Your task to perform on an android device: add a contact in the contacts app Image 0: 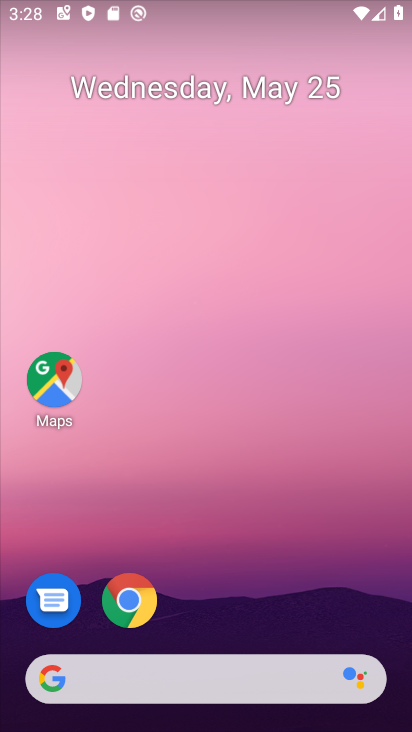
Step 0: press home button
Your task to perform on an android device: add a contact in the contacts app Image 1: 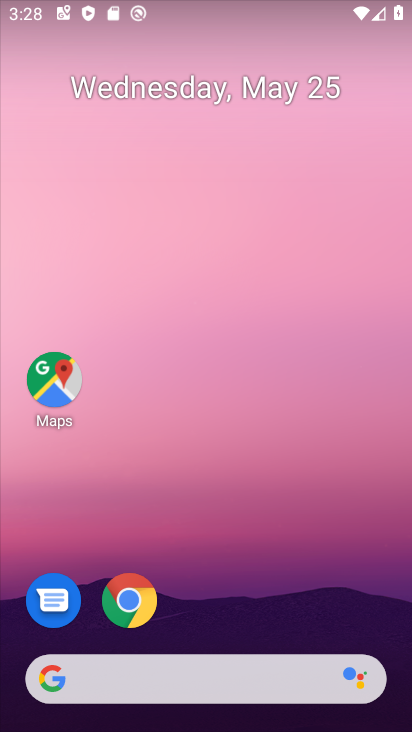
Step 1: drag from (13, 678) to (252, 102)
Your task to perform on an android device: add a contact in the contacts app Image 2: 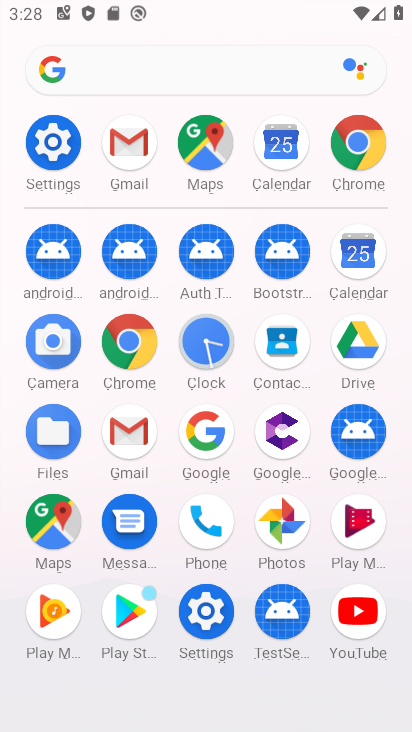
Step 2: click (203, 531)
Your task to perform on an android device: add a contact in the contacts app Image 3: 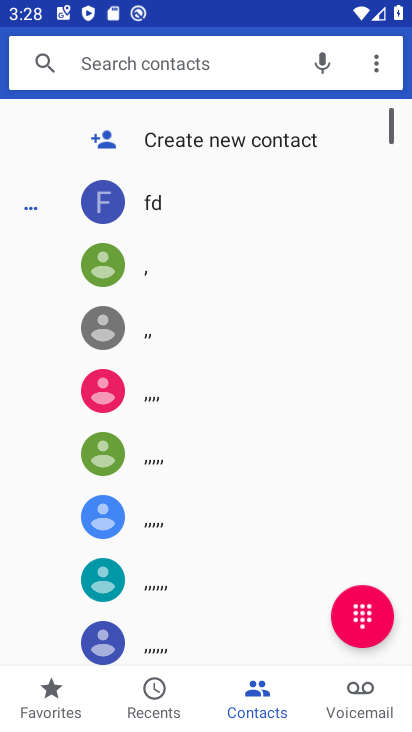
Step 3: click (193, 135)
Your task to perform on an android device: add a contact in the contacts app Image 4: 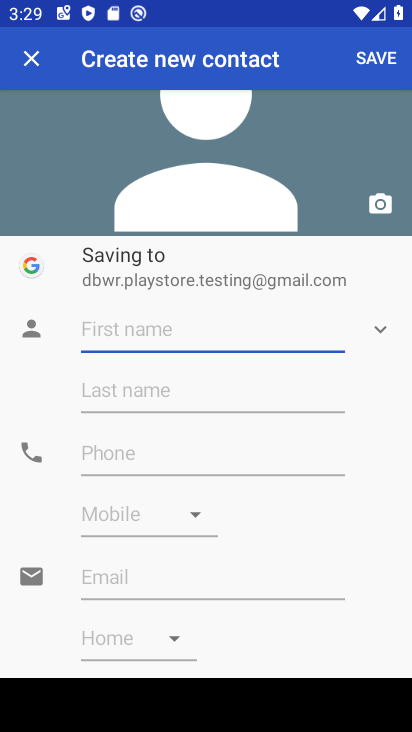
Step 4: click (126, 323)
Your task to perform on an android device: add a contact in the contacts app Image 5: 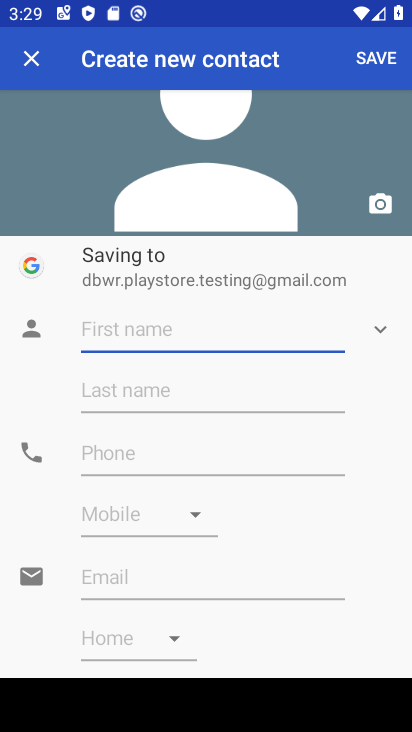
Step 5: type "gfvcdfc"
Your task to perform on an android device: add a contact in the contacts app Image 6: 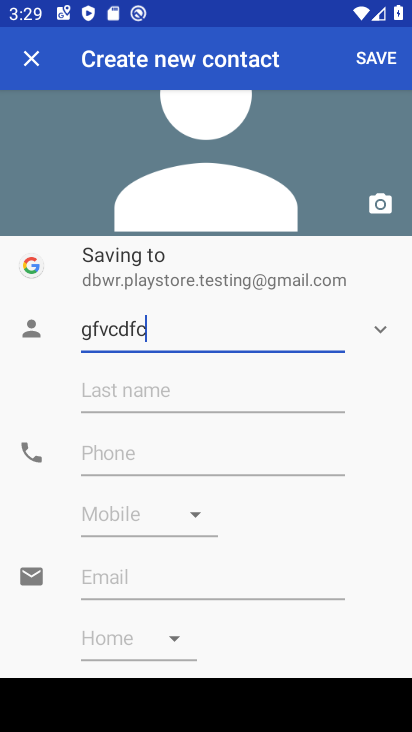
Step 6: type ""
Your task to perform on an android device: add a contact in the contacts app Image 7: 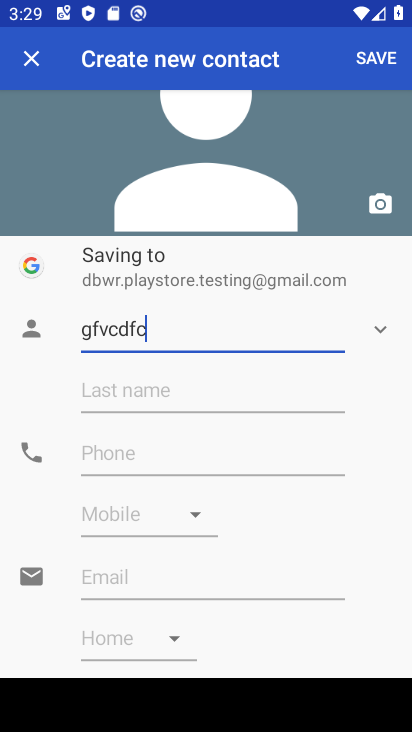
Step 7: click (365, 57)
Your task to perform on an android device: add a contact in the contacts app Image 8: 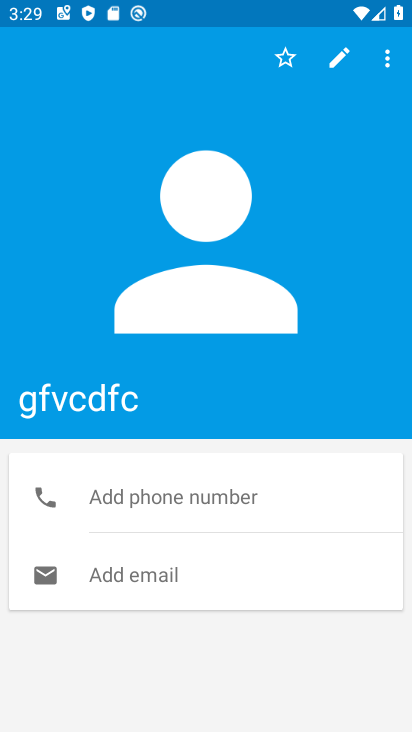
Step 8: task complete